Your task to perform on an android device: Go to display settings Image 0: 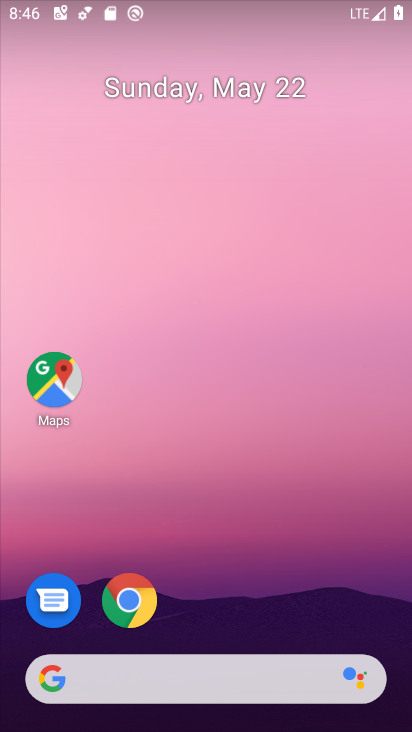
Step 0: drag from (185, 648) to (253, 300)
Your task to perform on an android device: Go to display settings Image 1: 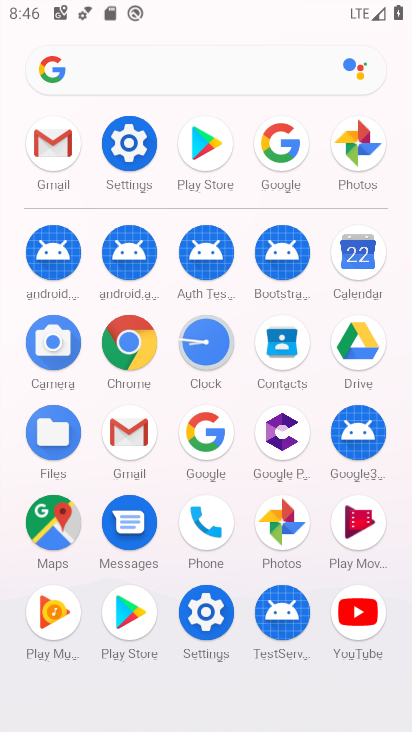
Step 1: click (134, 148)
Your task to perform on an android device: Go to display settings Image 2: 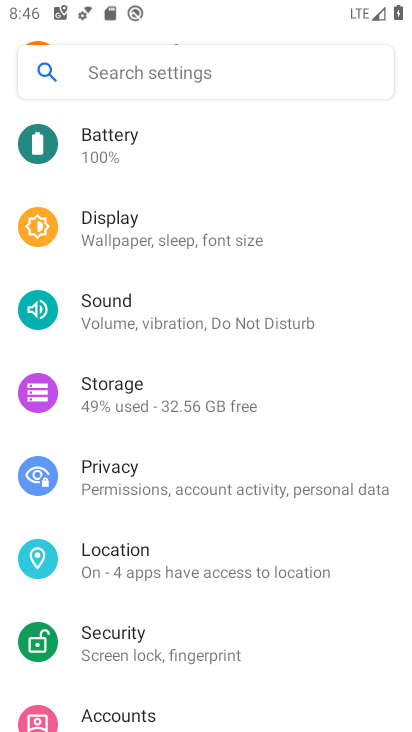
Step 2: click (113, 227)
Your task to perform on an android device: Go to display settings Image 3: 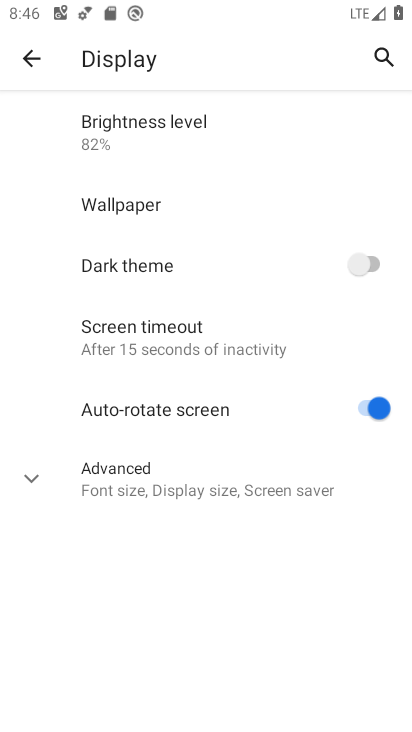
Step 3: click (113, 463)
Your task to perform on an android device: Go to display settings Image 4: 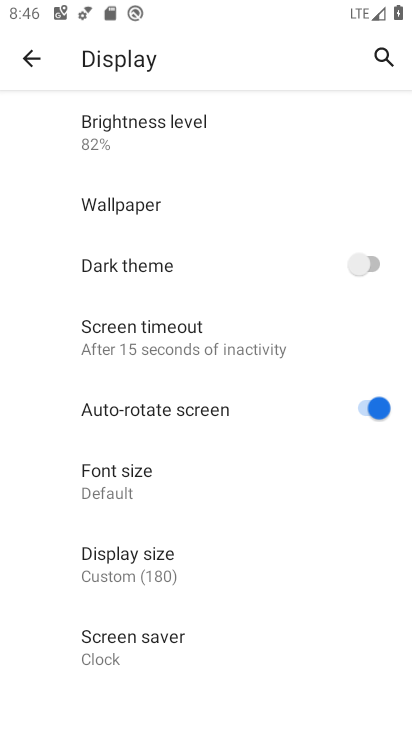
Step 4: task complete